Your task to perform on an android device: read, delete, or share a saved page in the chrome app Image 0: 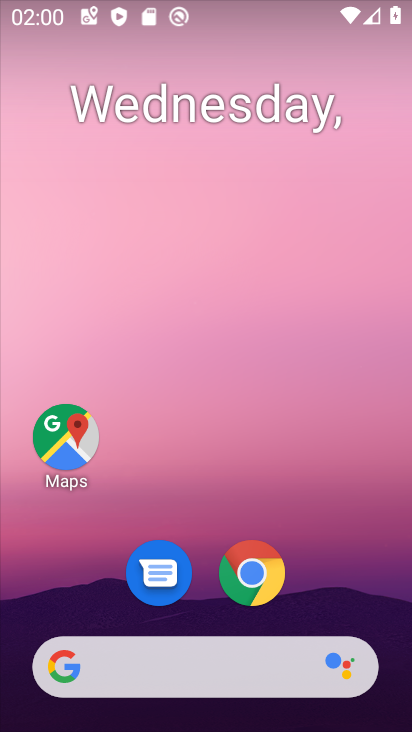
Step 0: click (252, 575)
Your task to perform on an android device: read, delete, or share a saved page in the chrome app Image 1: 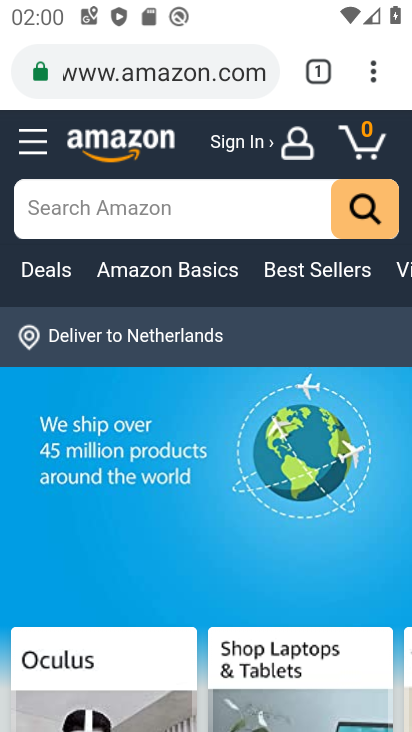
Step 1: click (375, 68)
Your task to perform on an android device: read, delete, or share a saved page in the chrome app Image 2: 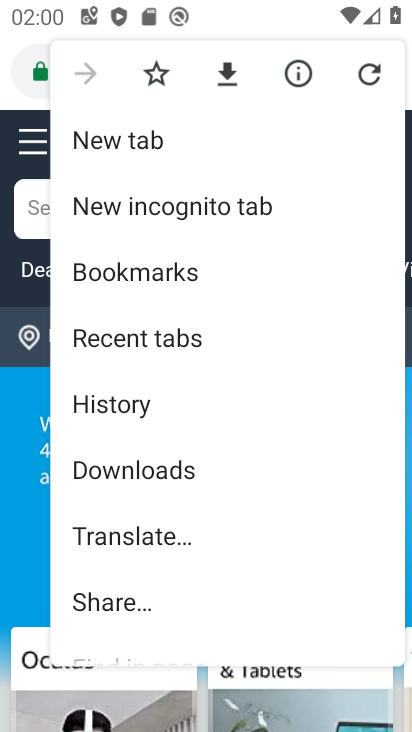
Step 2: drag from (181, 497) to (196, 396)
Your task to perform on an android device: read, delete, or share a saved page in the chrome app Image 3: 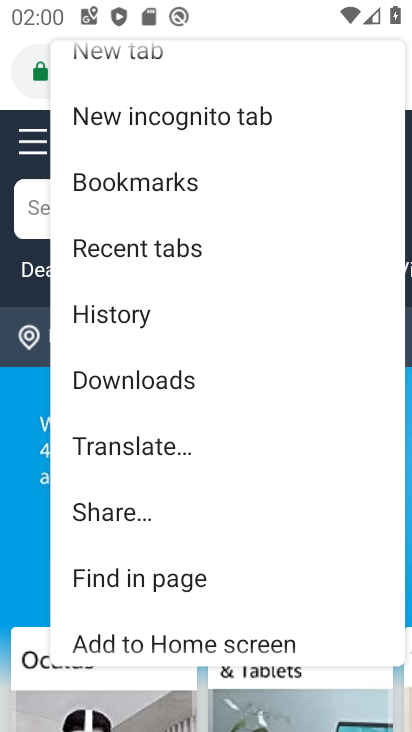
Step 3: click (157, 378)
Your task to perform on an android device: read, delete, or share a saved page in the chrome app Image 4: 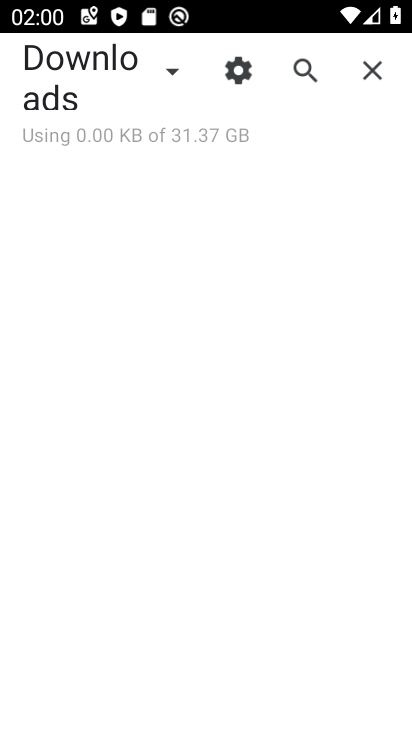
Step 4: click (170, 66)
Your task to perform on an android device: read, delete, or share a saved page in the chrome app Image 5: 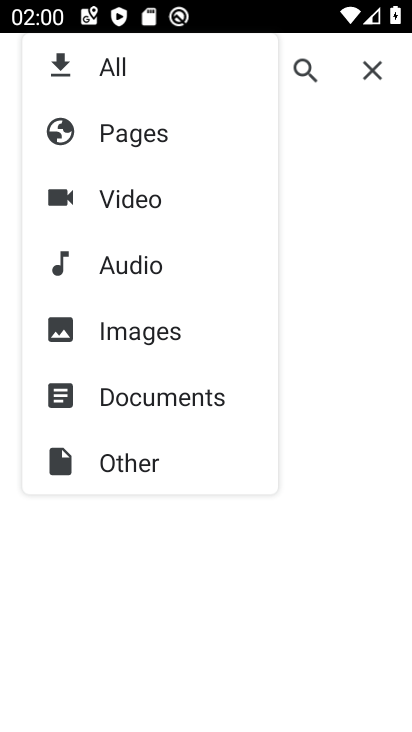
Step 5: click (130, 121)
Your task to perform on an android device: read, delete, or share a saved page in the chrome app Image 6: 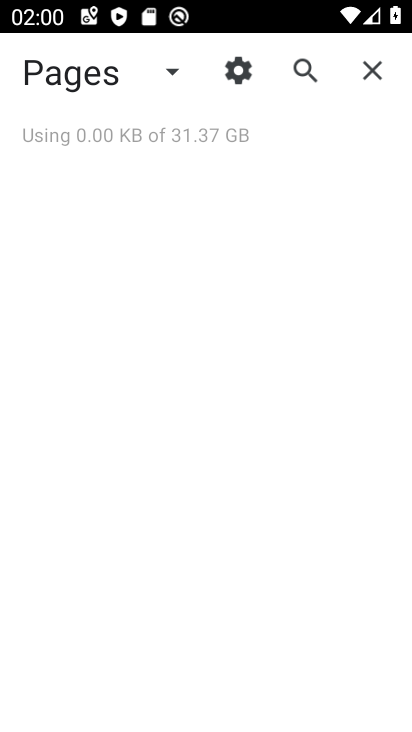
Step 6: task complete